Your task to perform on an android device: Find coffee shops on Maps Image 0: 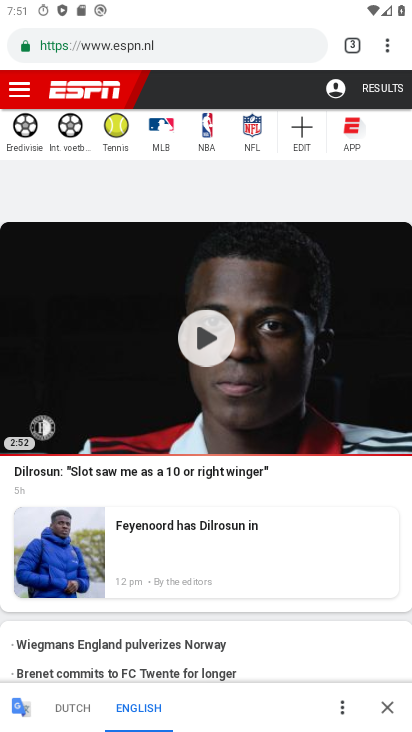
Step 0: press home button
Your task to perform on an android device: Find coffee shops on Maps Image 1: 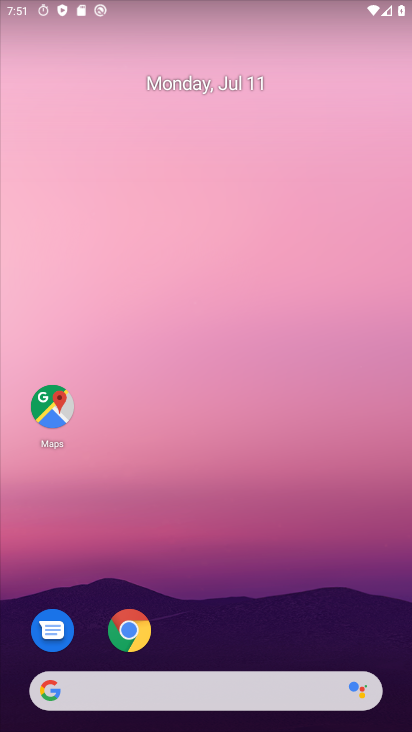
Step 1: click (32, 413)
Your task to perform on an android device: Find coffee shops on Maps Image 2: 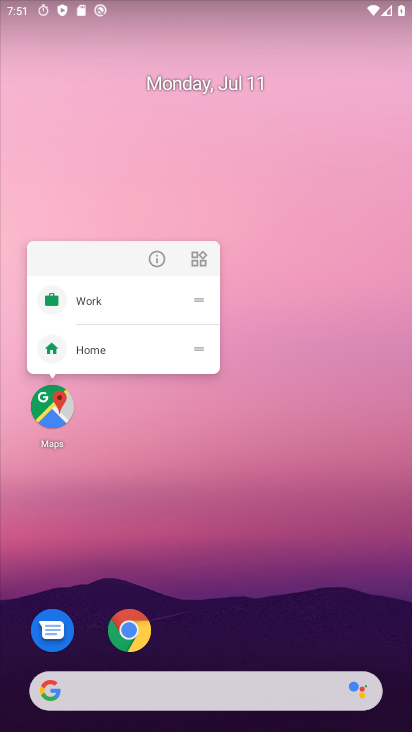
Step 2: click (72, 401)
Your task to perform on an android device: Find coffee shops on Maps Image 3: 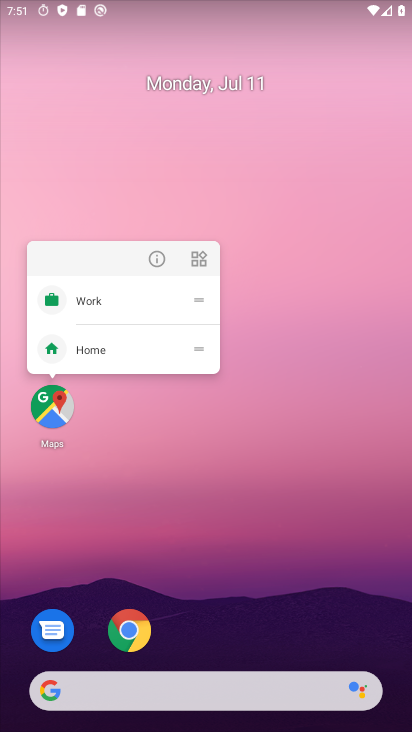
Step 3: click (53, 411)
Your task to perform on an android device: Find coffee shops on Maps Image 4: 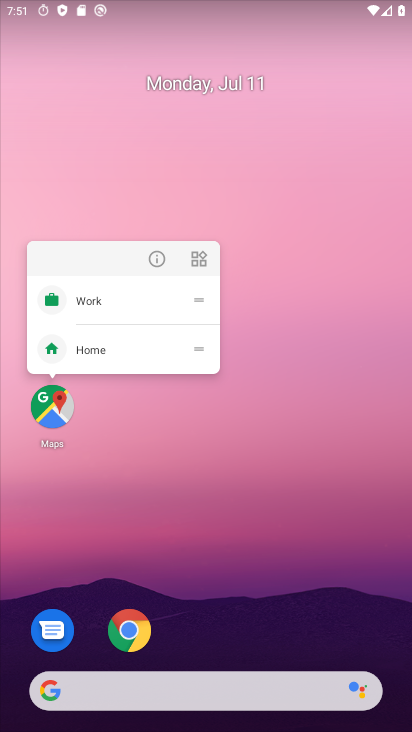
Step 4: click (53, 411)
Your task to perform on an android device: Find coffee shops on Maps Image 5: 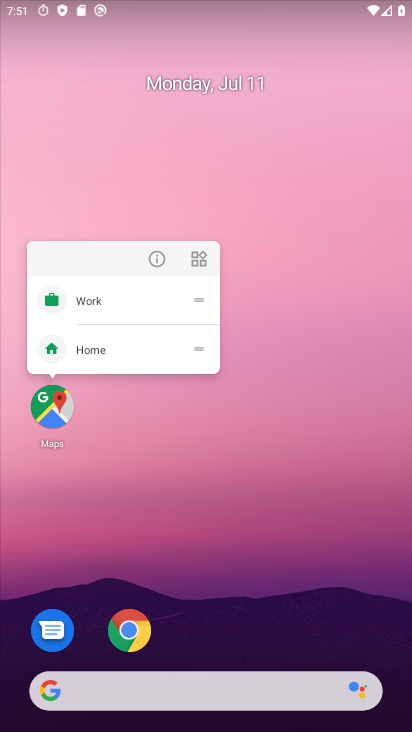
Step 5: click (53, 416)
Your task to perform on an android device: Find coffee shops on Maps Image 6: 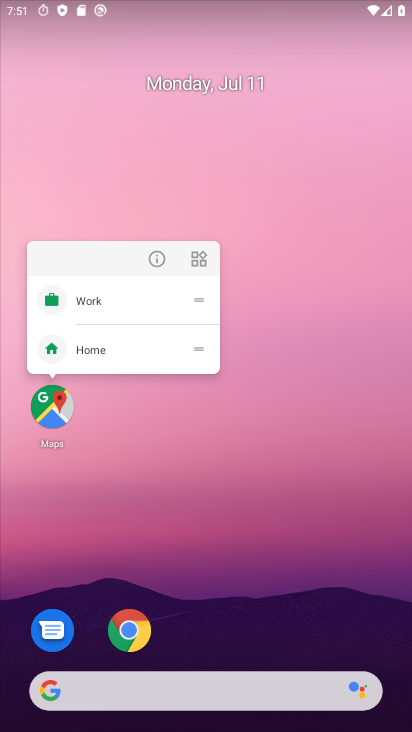
Step 6: click (52, 413)
Your task to perform on an android device: Find coffee shops on Maps Image 7: 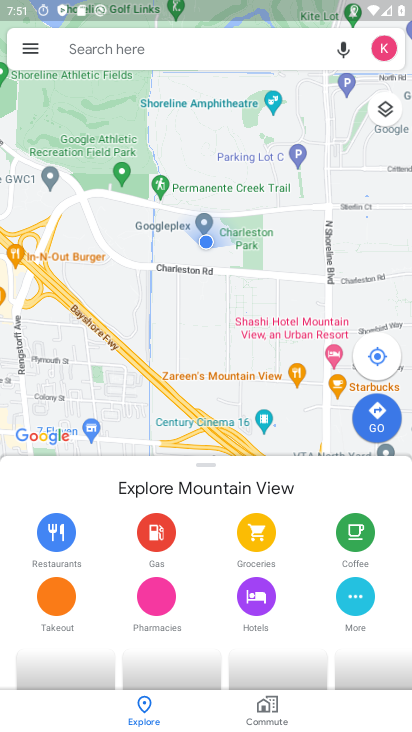
Step 7: click (194, 42)
Your task to perform on an android device: Find coffee shops on Maps Image 8: 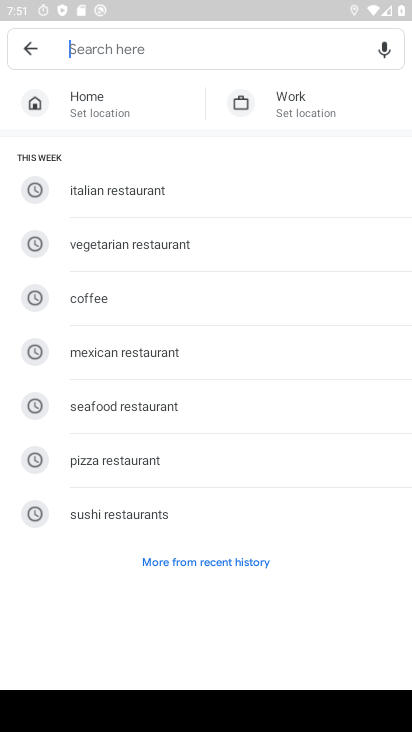
Step 8: click (90, 302)
Your task to perform on an android device: Find coffee shops on Maps Image 9: 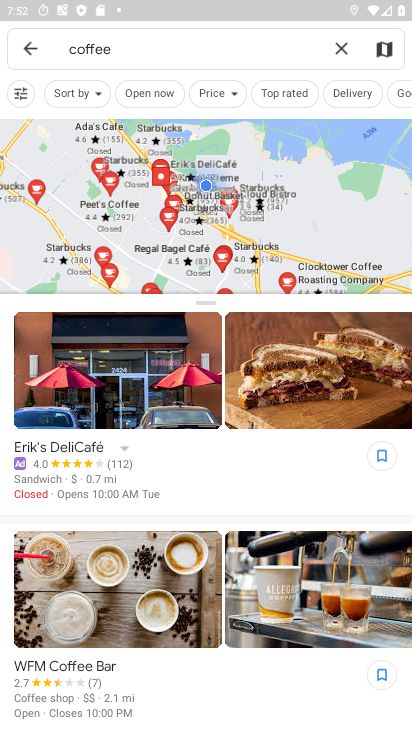
Step 9: task complete